Your task to perform on an android device: turn on translation in the chrome app Image 0: 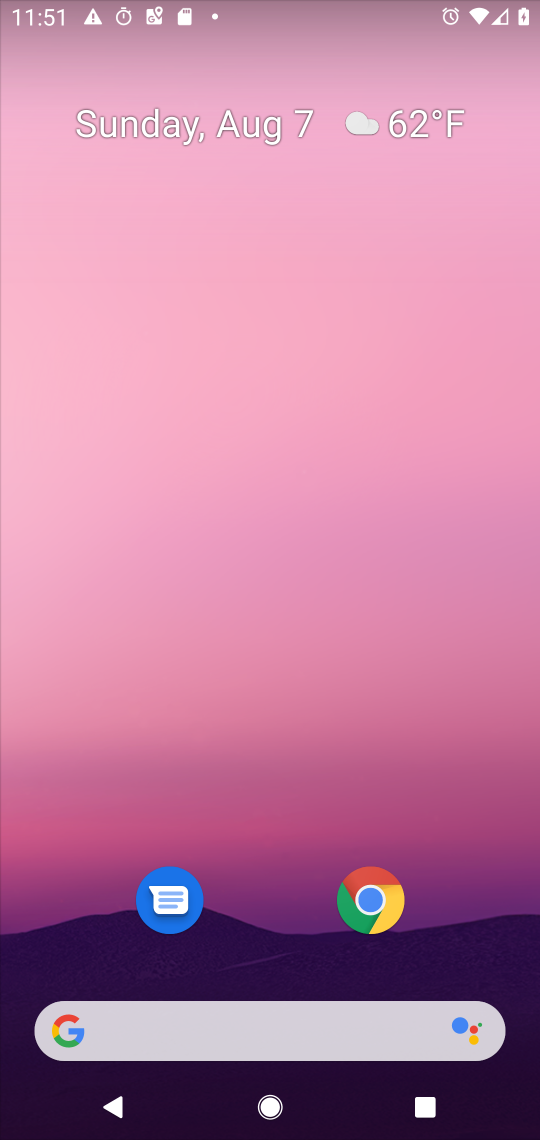
Step 0: press home button
Your task to perform on an android device: turn on translation in the chrome app Image 1: 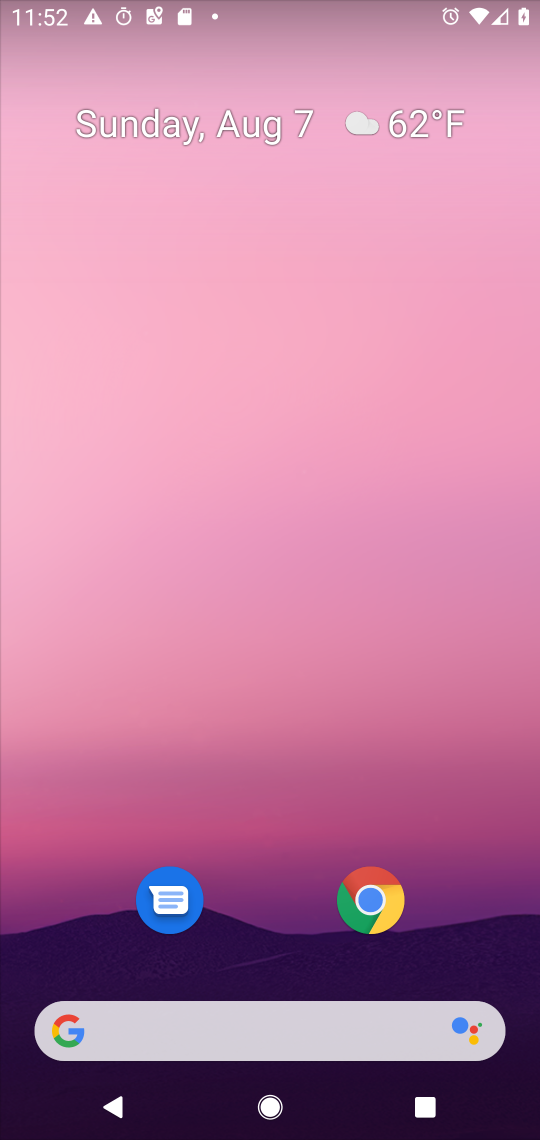
Step 1: click (365, 893)
Your task to perform on an android device: turn on translation in the chrome app Image 2: 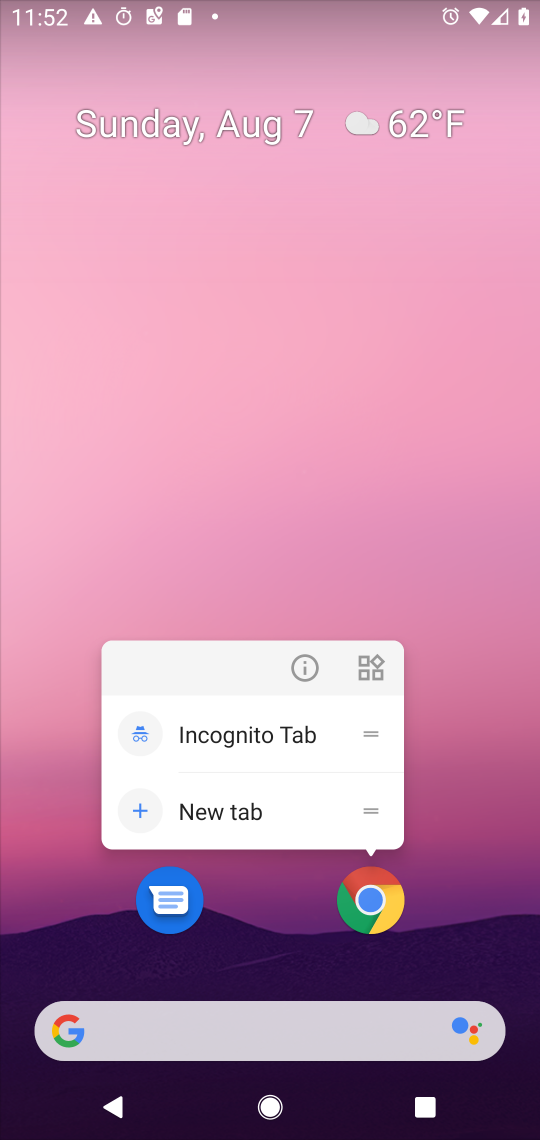
Step 2: click (391, 420)
Your task to perform on an android device: turn on translation in the chrome app Image 3: 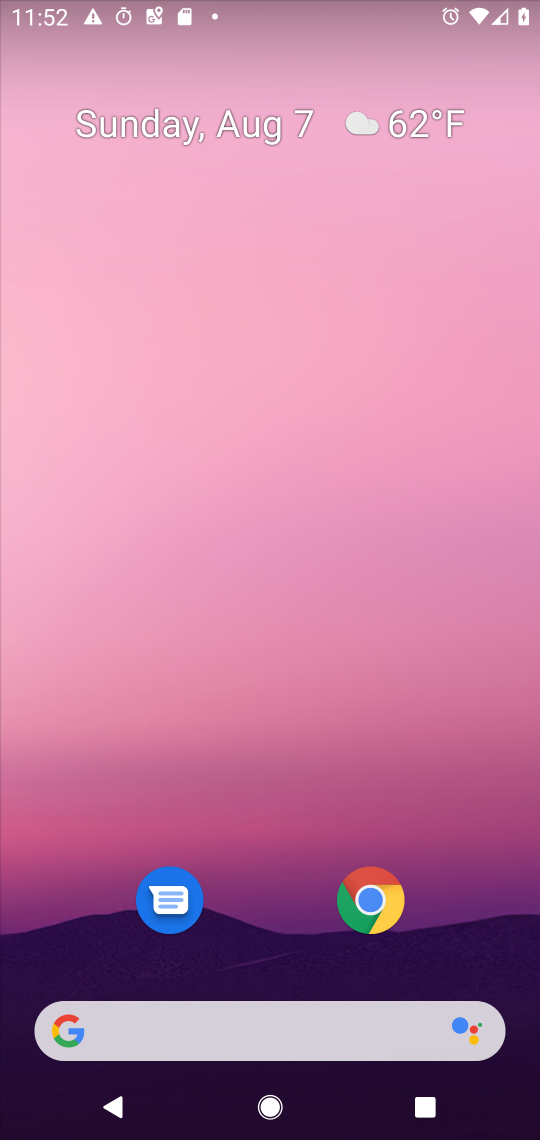
Step 3: drag from (439, 797) to (451, 90)
Your task to perform on an android device: turn on translation in the chrome app Image 4: 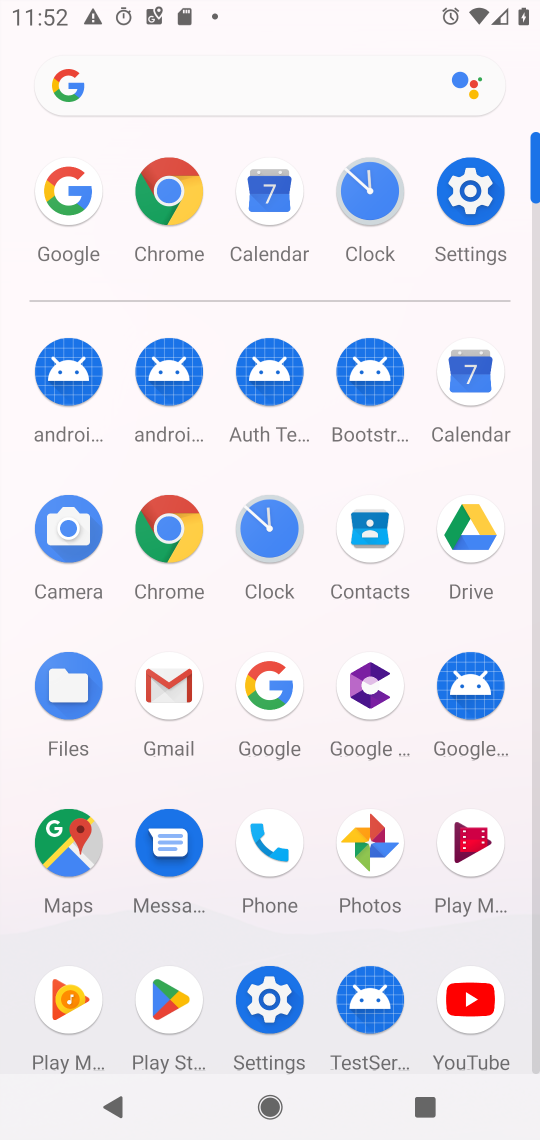
Step 4: click (166, 188)
Your task to perform on an android device: turn on translation in the chrome app Image 5: 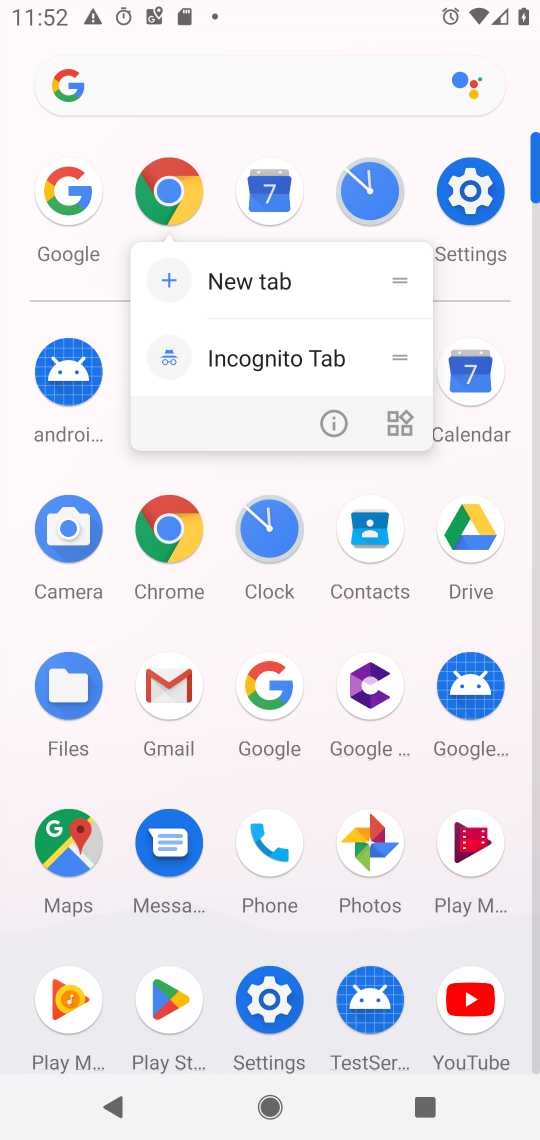
Step 5: click (163, 522)
Your task to perform on an android device: turn on translation in the chrome app Image 6: 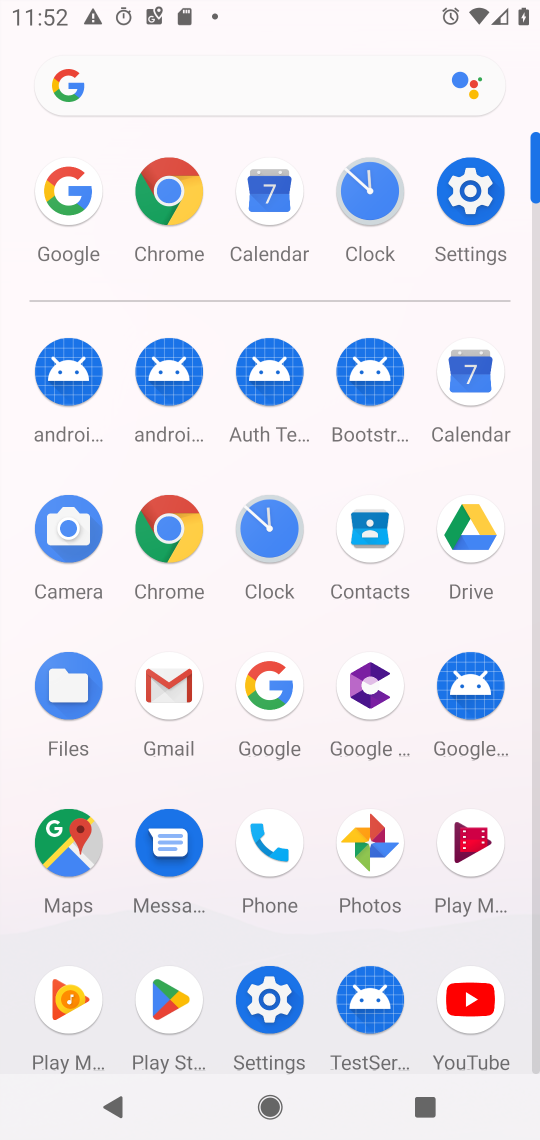
Step 6: click (168, 521)
Your task to perform on an android device: turn on translation in the chrome app Image 7: 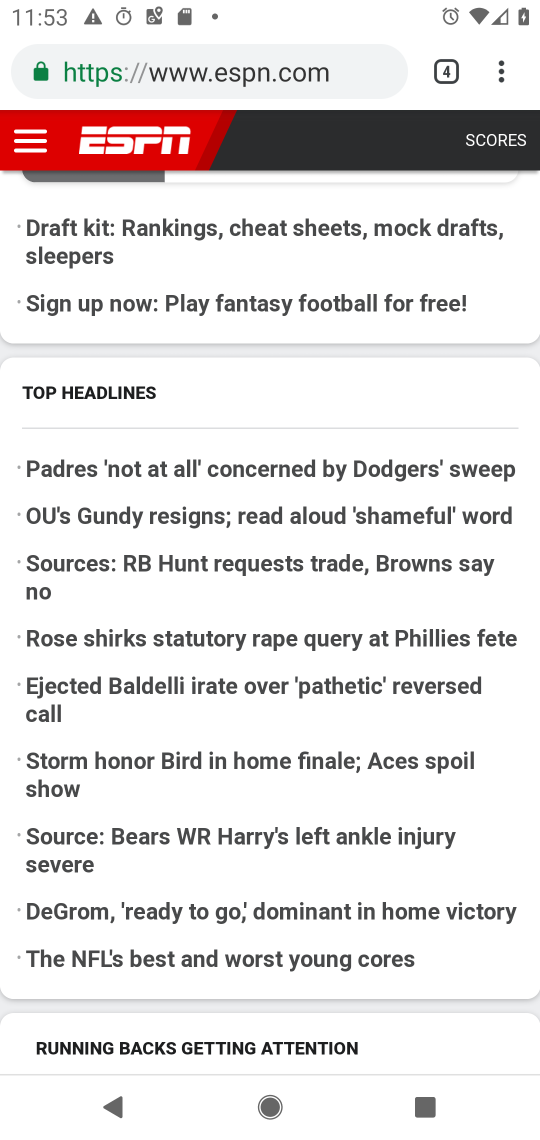
Step 7: click (504, 65)
Your task to perform on an android device: turn on translation in the chrome app Image 8: 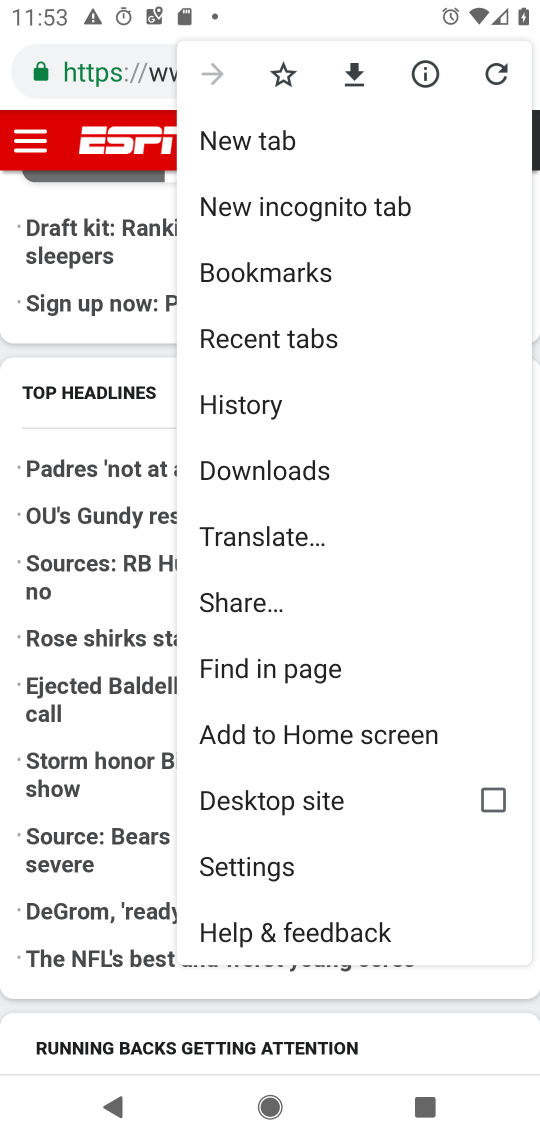
Step 8: click (308, 868)
Your task to perform on an android device: turn on translation in the chrome app Image 9: 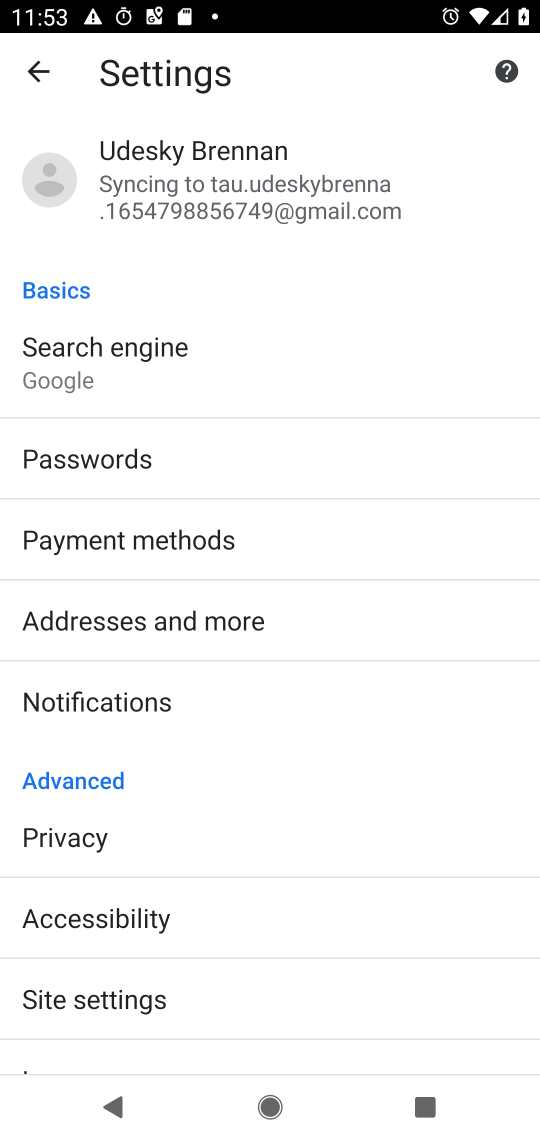
Step 9: drag from (222, 997) to (264, 315)
Your task to perform on an android device: turn on translation in the chrome app Image 10: 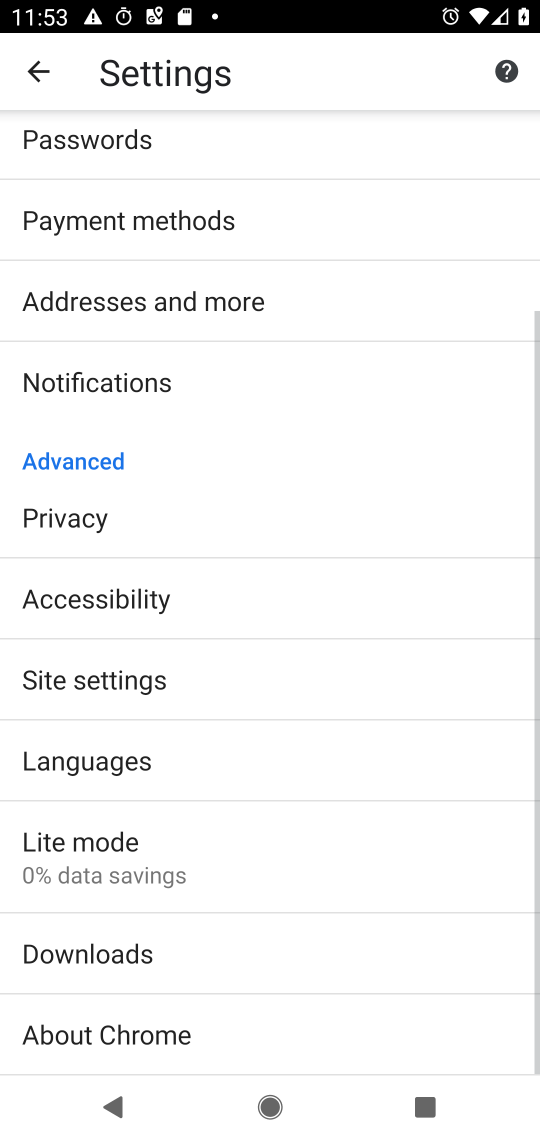
Step 10: click (149, 765)
Your task to perform on an android device: turn on translation in the chrome app Image 11: 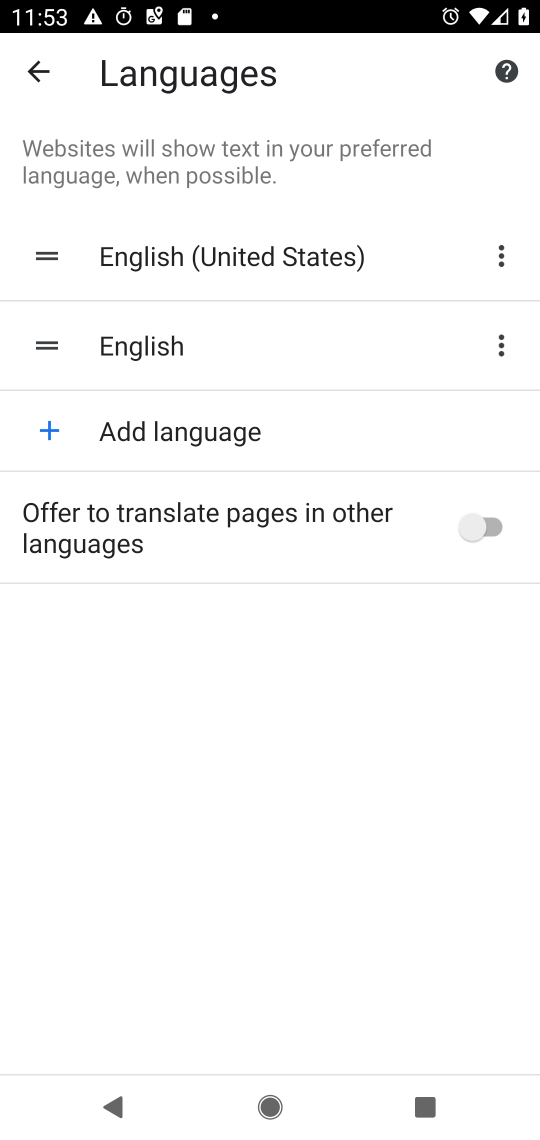
Step 11: click (499, 531)
Your task to perform on an android device: turn on translation in the chrome app Image 12: 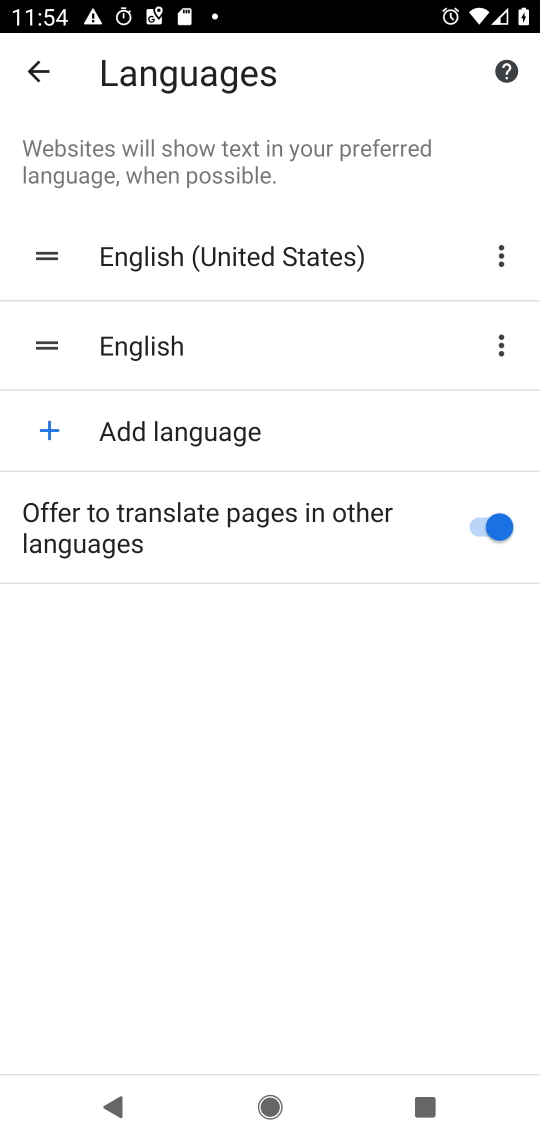
Step 12: task complete